Your task to perform on an android device: Open Google Image 0: 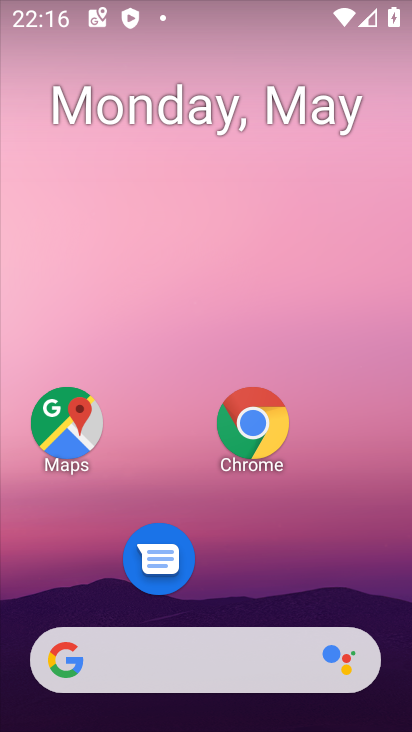
Step 0: click (145, 667)
Your task to perform on an android device: Open Google Image 1: 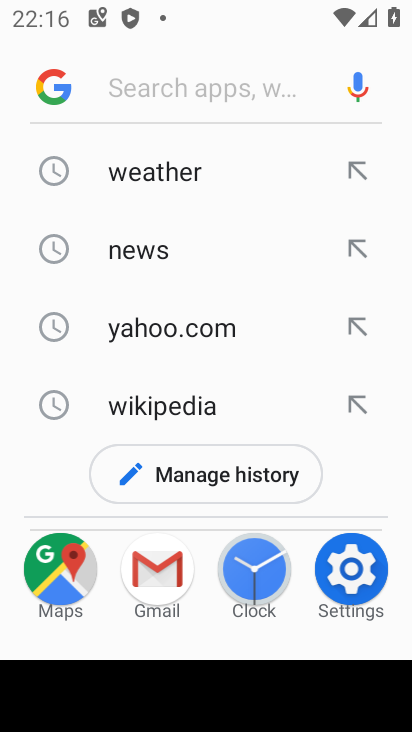
Step 1: task complete